Your task to perform on an android device: Go to settings Image 0: 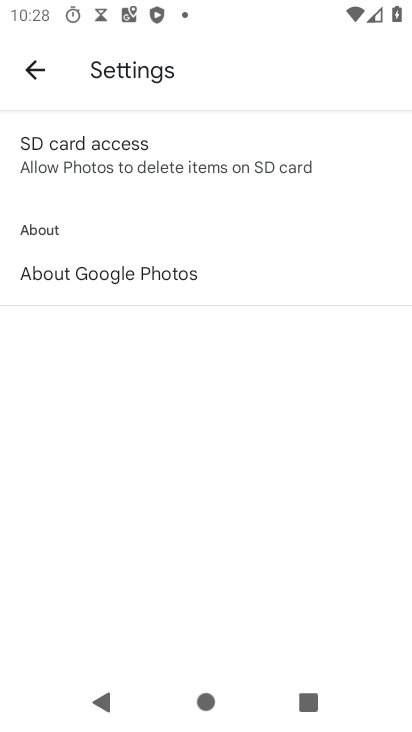
Step 0: press home button
Your task to perform on an android device: Go to settings Image 1: 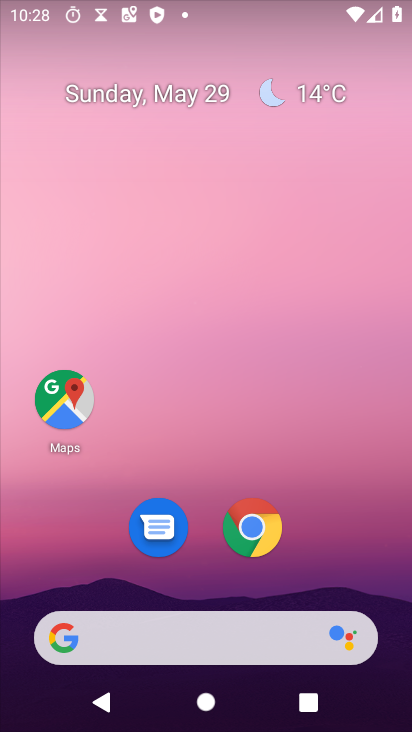
Step 1: drag from (143, 512) to (195, 102)
Your task to perform on an android device: Go to settings Image 2: 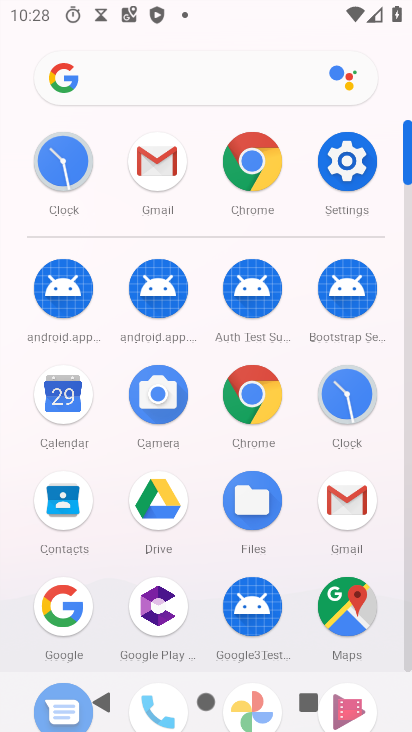
Step 2: click (341, 168)
Your task to perform on an android device: Go to settings Image 3: 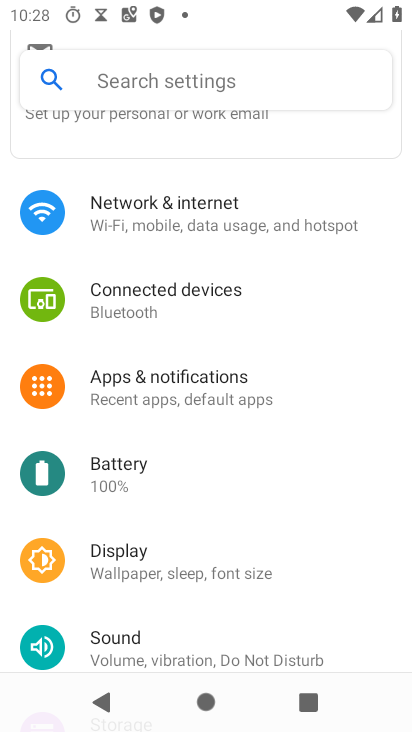
Step 3: task complete